Your task to perform on an android device: change the clock display to digital Image 0: 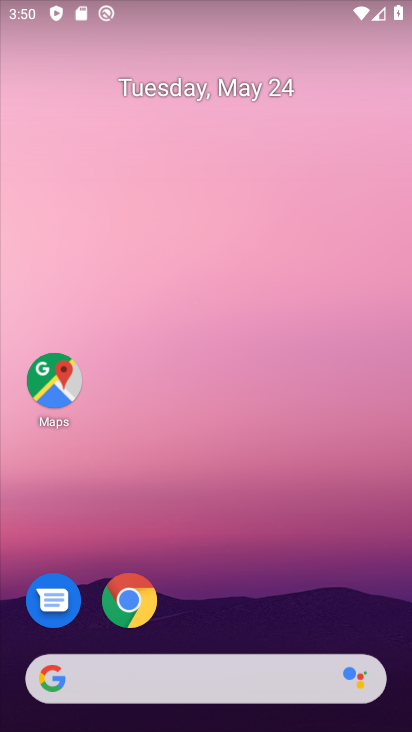
Step 0: drag from (321, 676) to (293, 0)
Your task to perform on an android device: change the clock display to digital Image 1: 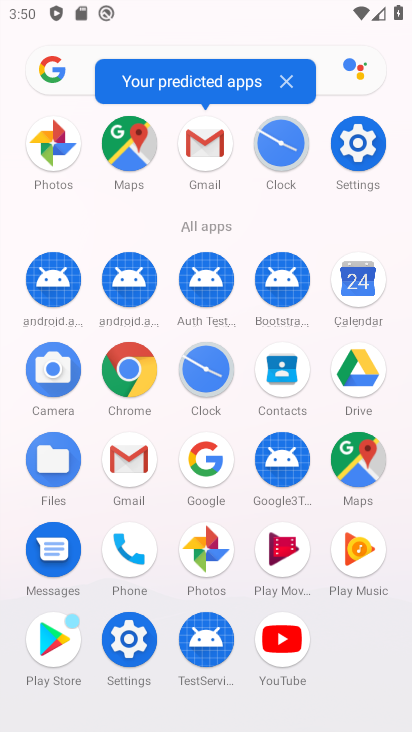
Step 1: click (357, 149)
Your task to perform on an android device: change the clock display to digital Image 2: 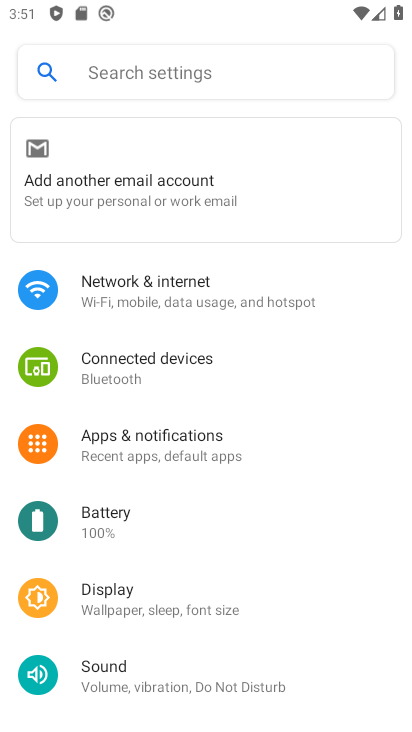
Step 2: press back button
Your task to perform on an android device: change the clock display to digital Image 3: 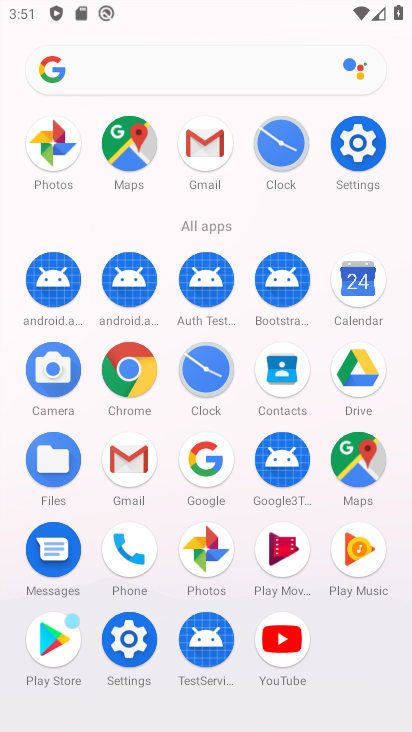
Step 3: click (209, 371)
Your task to perform on an android device: change the clock display to digital Image 4: 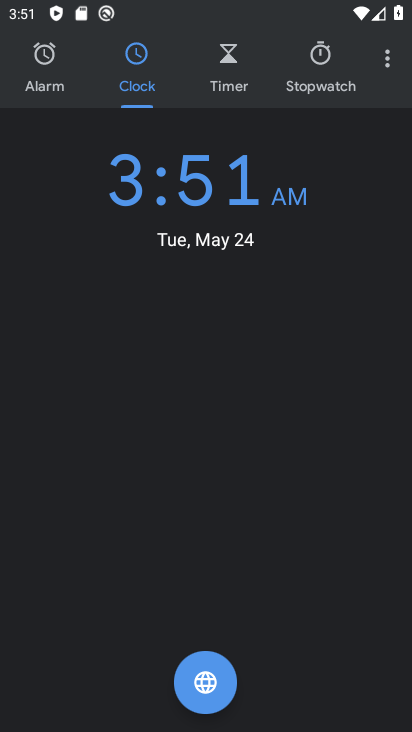
Step 4: click (396, 59)
Your task to perform on an android device: change the clock display to digital Image 5: 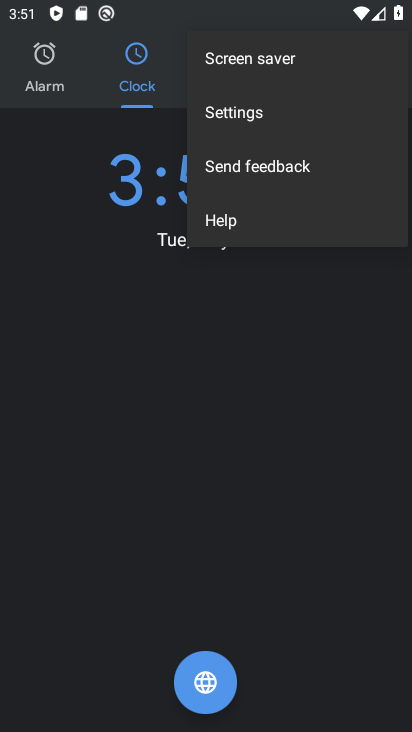
Step 5: click (274, 119)
Your task to perform on an android device: change the clock display to digital Image 6: 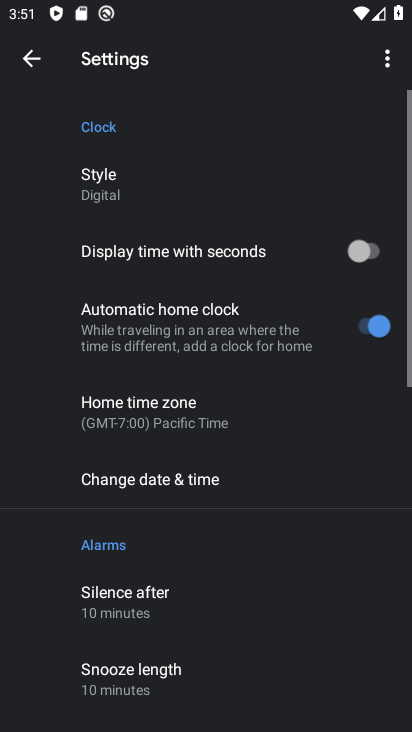
Step 6: drag from (309, 592) to (296, 157)
Your task to perform on an android device: change the clock display to digital Image 7: 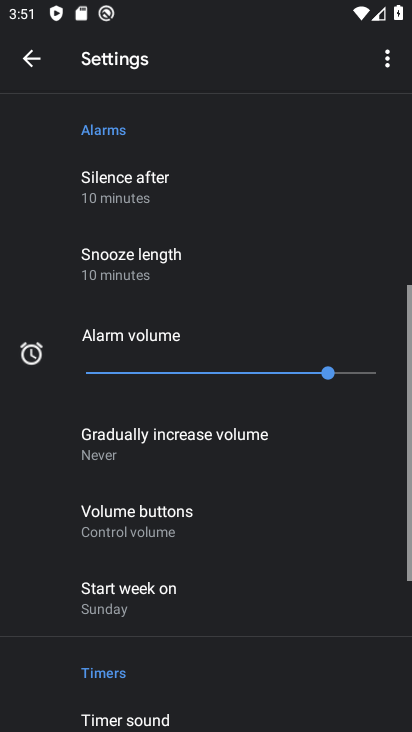
Step 7: drag from (296, 157) to (252, 722)
Your task to perform on an android device: change the clock display to digital Image 8: 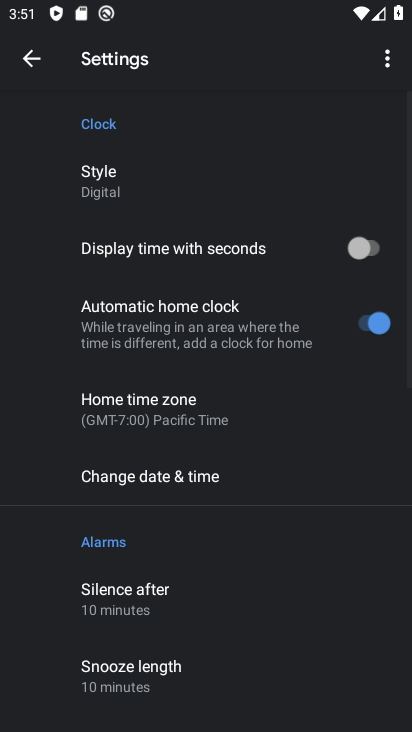
Step 8: click (147, 181)
Your task to perform on an android device: change the clock display to digital Image 9: 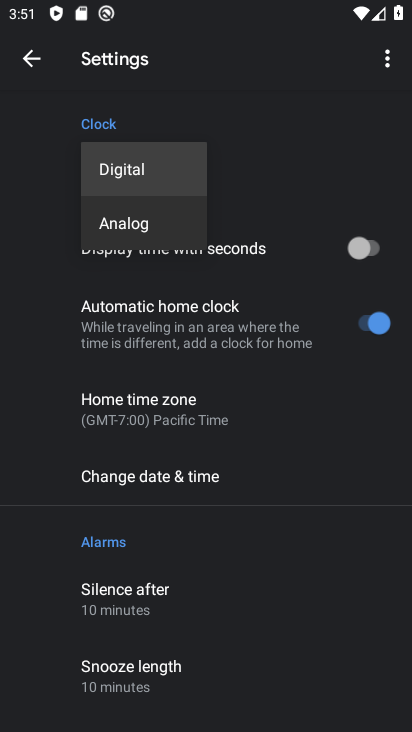
Step 9: click (147, 181)
Your task to perform on an android device: change the clock display to digital Image 10: 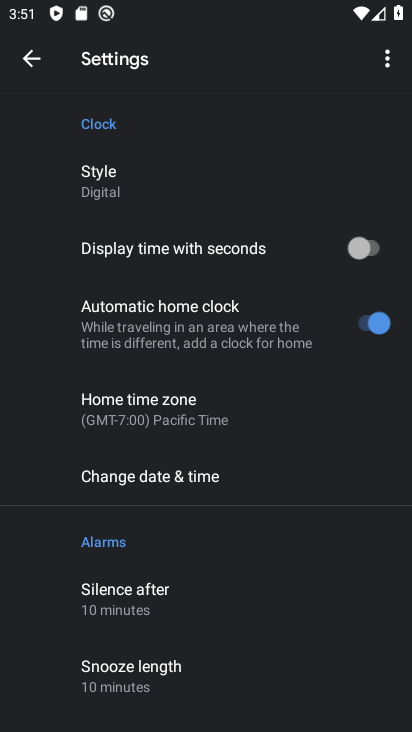
Step 10: task complete